Your task to perform on an android device: find photos in the google photos app Image 0: 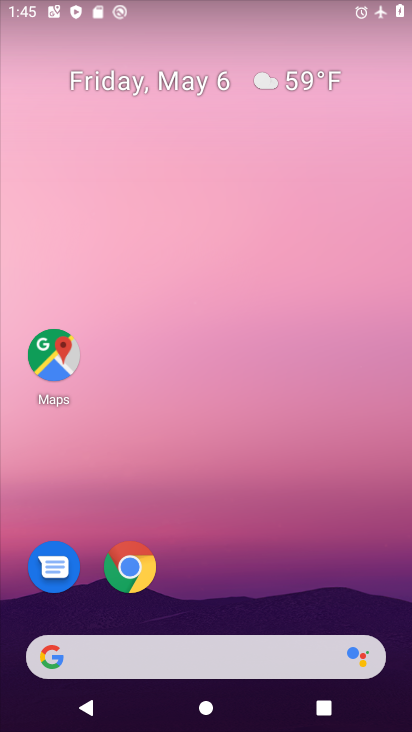
Step 0: drag from (278, 625) to (222, 96)
Your task to perform on an android device: find photos in the google photos app Image 1: 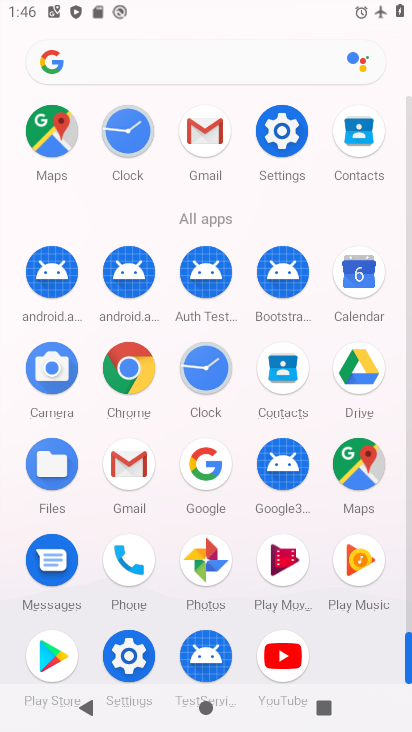
Step 1: click (205, 547)
Your task to perform on an android device: find photos in the google photos app Image 2: 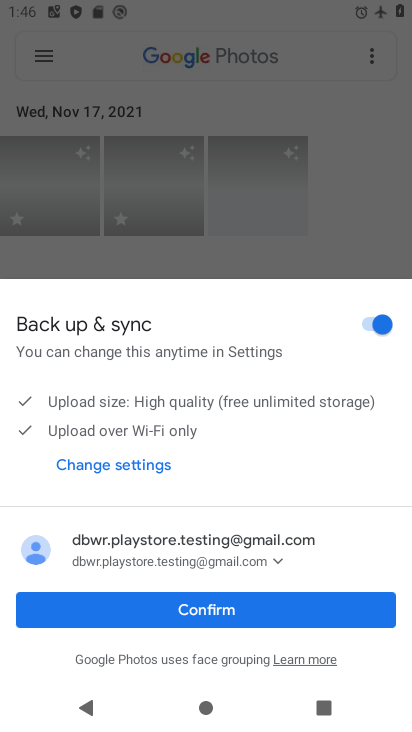
Step 2: click (248, 615)
Your task to perform on an android device: find photos in the google photos app Image 3: 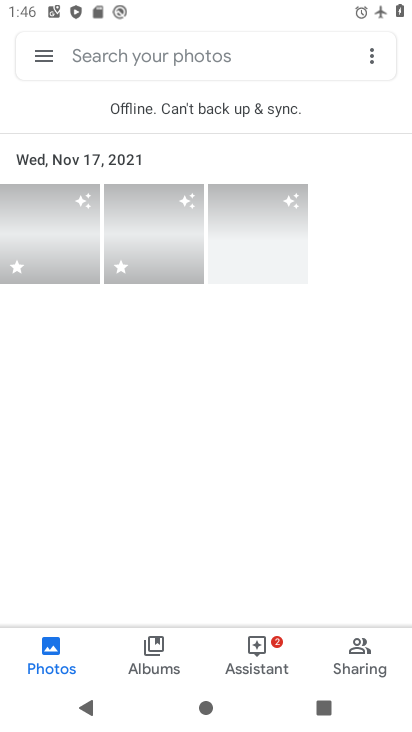
Step 3: task complete